Your task to perform on an android device: all mails in gmail Image 0: 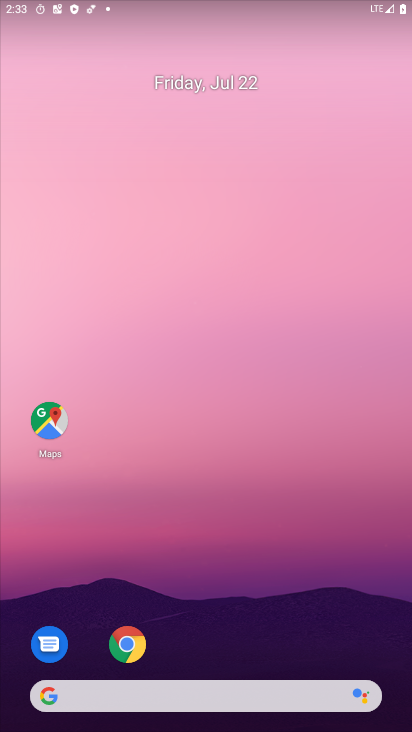
Step 0: drag from (203, 604) to (222, 222)
Your task to perform on an android device: all mails in gmail Image 1: 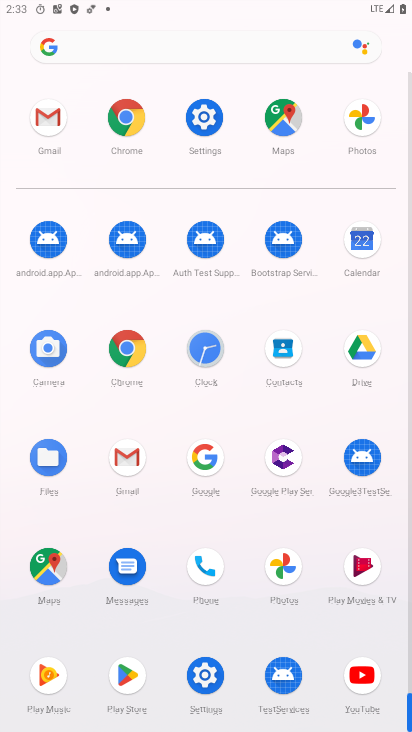
Step 1: click (124, 466)
Your task to perform on an android device: all mails in gmail Image 2: 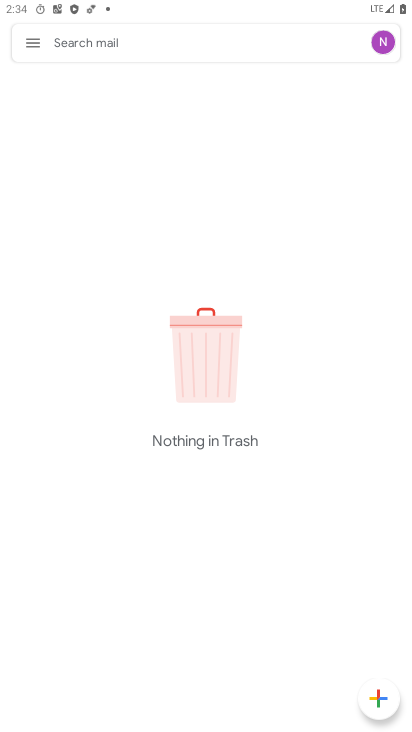
Step 2: click (35, 45)
Your task to perform on an android device: all mails in gmail Image 3: 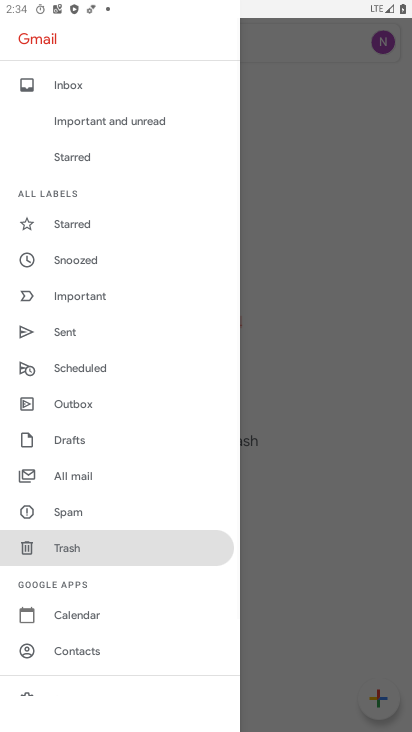
Step 3: click (89, 471)
Your task to perform on an android device: all mails in gmail Image 4: 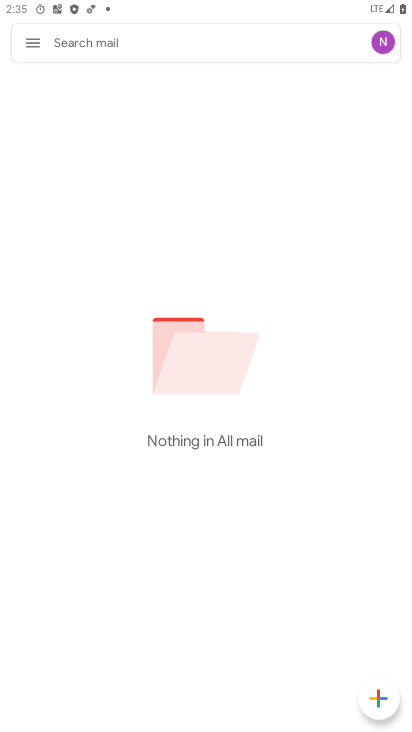
Step 4: task complete